Your task to perform on an android device: turn on the 12-hour format for clock Image 0: 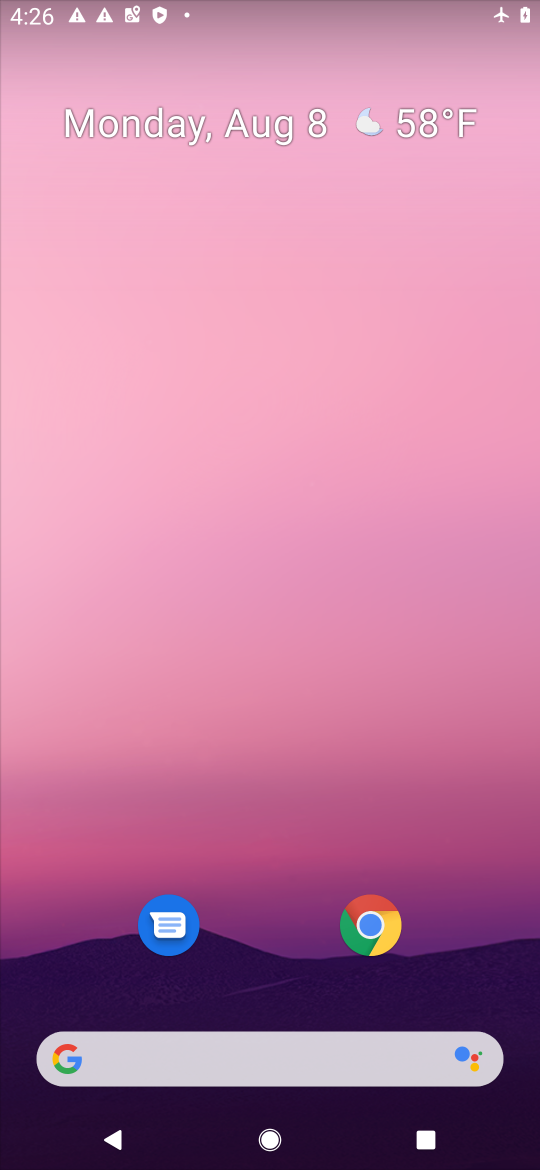
Step 0: drag from (296, 998) to (246, 334)
Your task to perform on an android device: turn on the 12-hour format for clock Image 1: 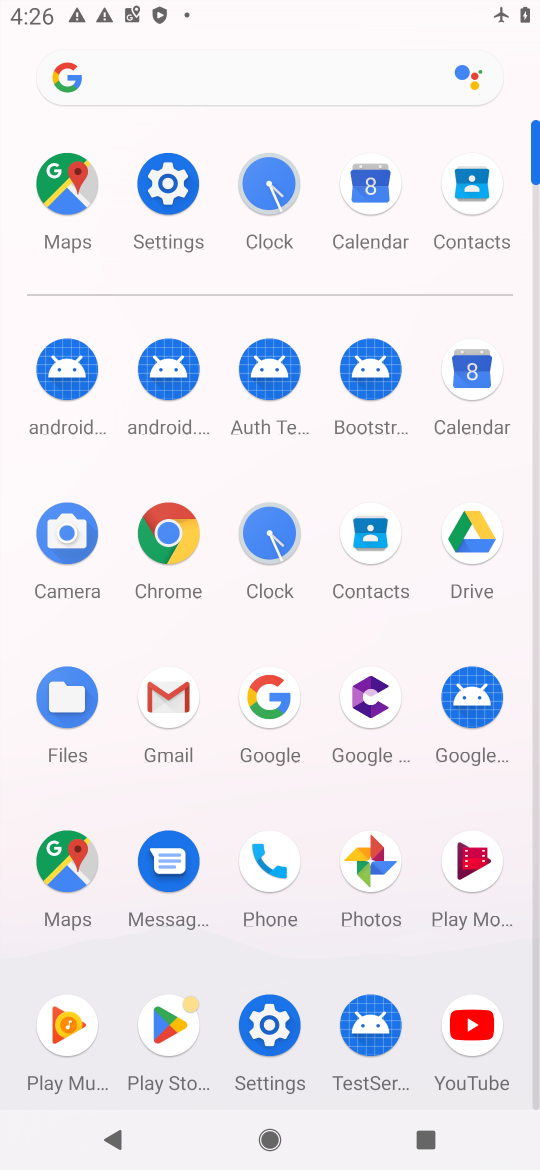
Step 1: click (268, 532)
Your task to perform on an android device: turn on the 12-hour format for clock Image 2: 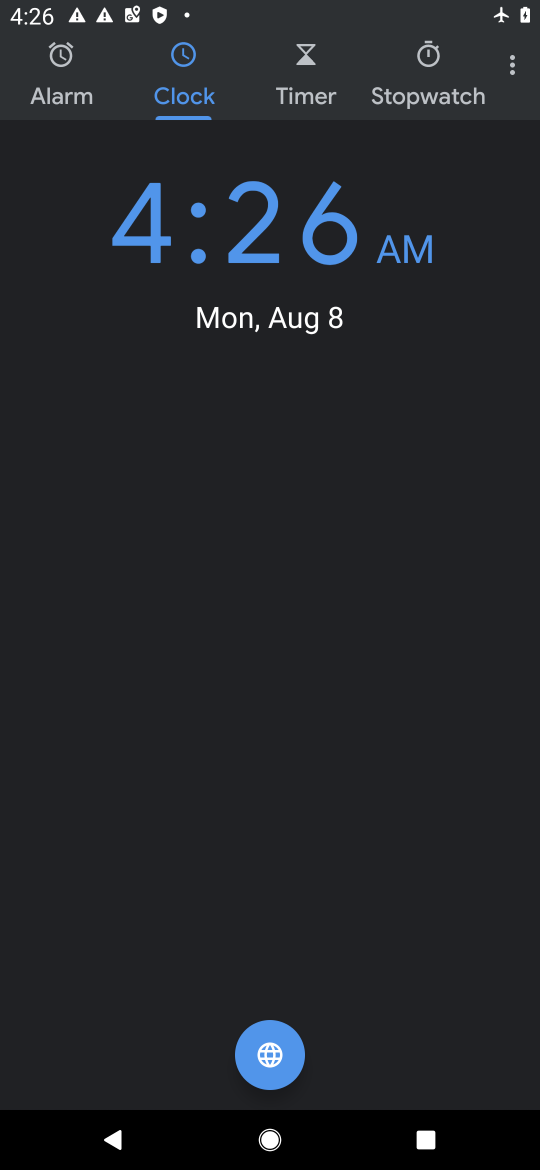
Step 2: click (512, 78)
Your task to perform on an android device: turn on the 12-hour format for clock Image 3: 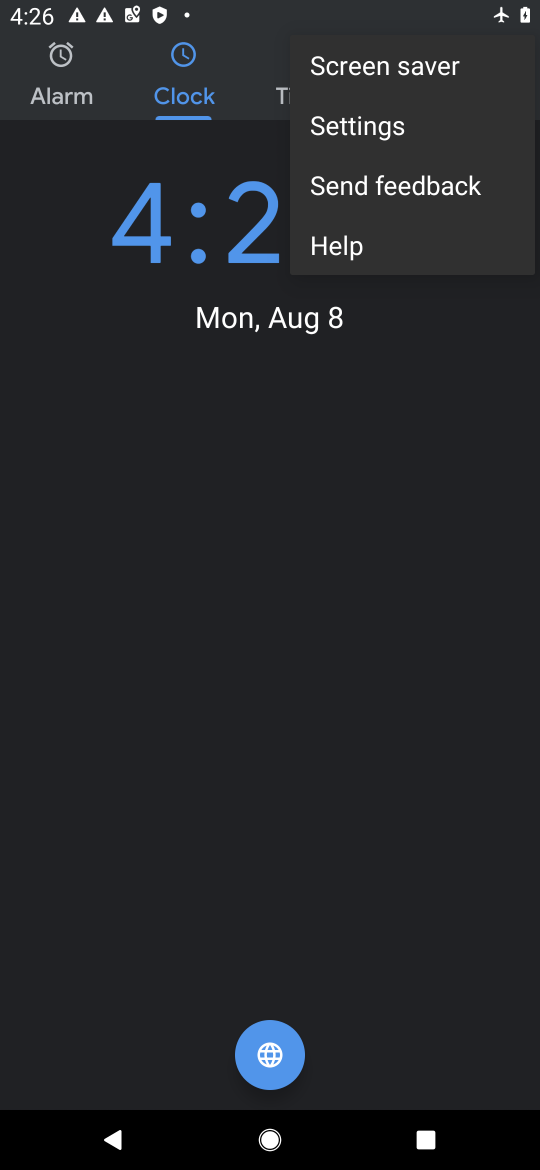
Step 3: click (386, 139)
Your task to perform on an android device: turn on the 12-hour format for clock Image 4: 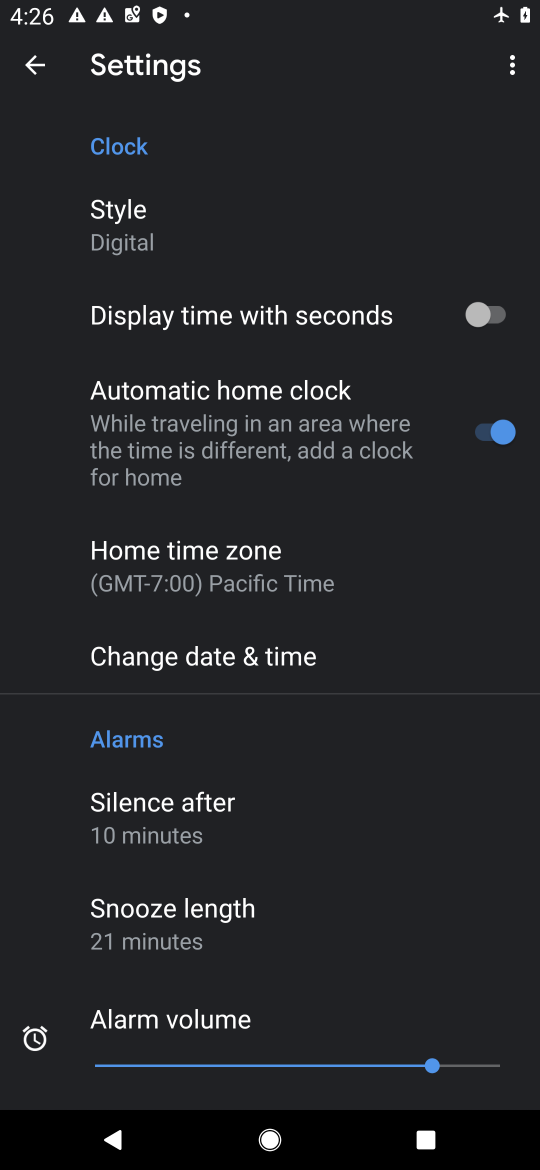
Step 4: click (245, 658)
Your task to perform on an android device: turn on the 12-hour format for clock Image 5: 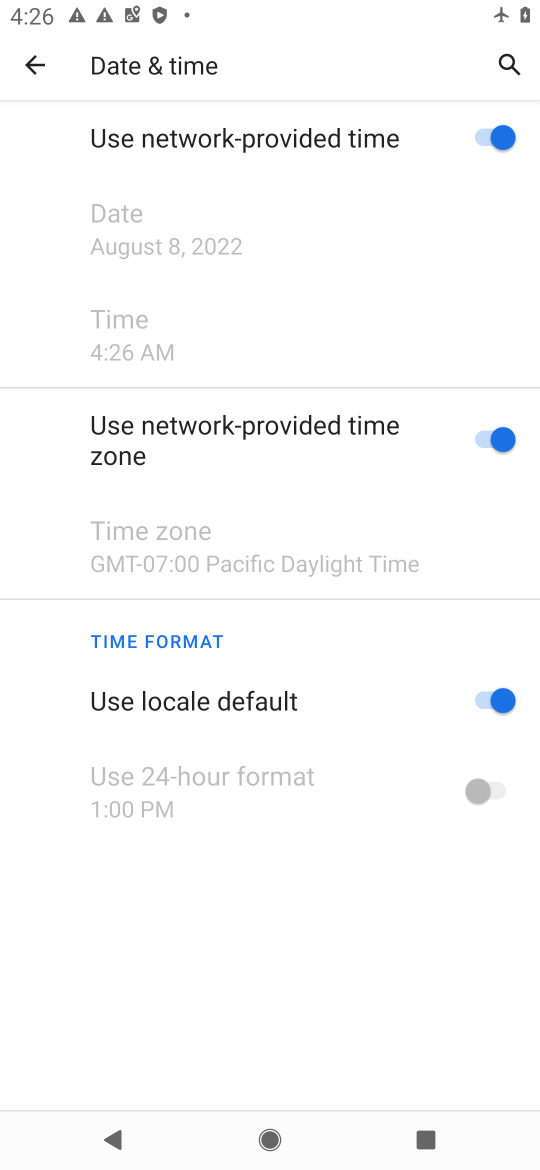
Step 5: task complete